Your task to perform on an android device: set the timer Image 0: 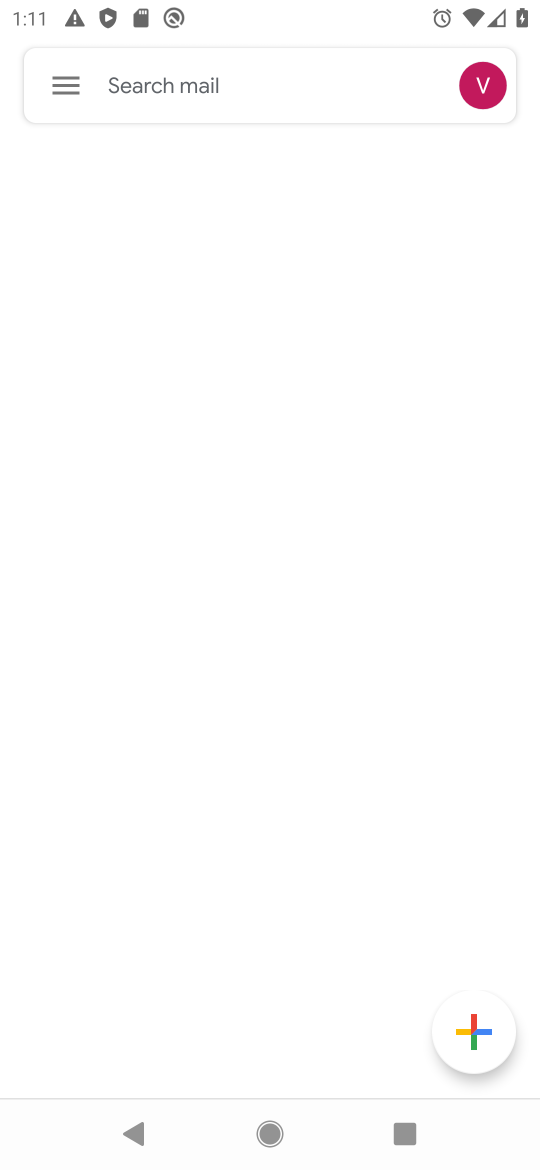
Step 0: press home button
Your task to perform on an android device: set the timer Image 1: 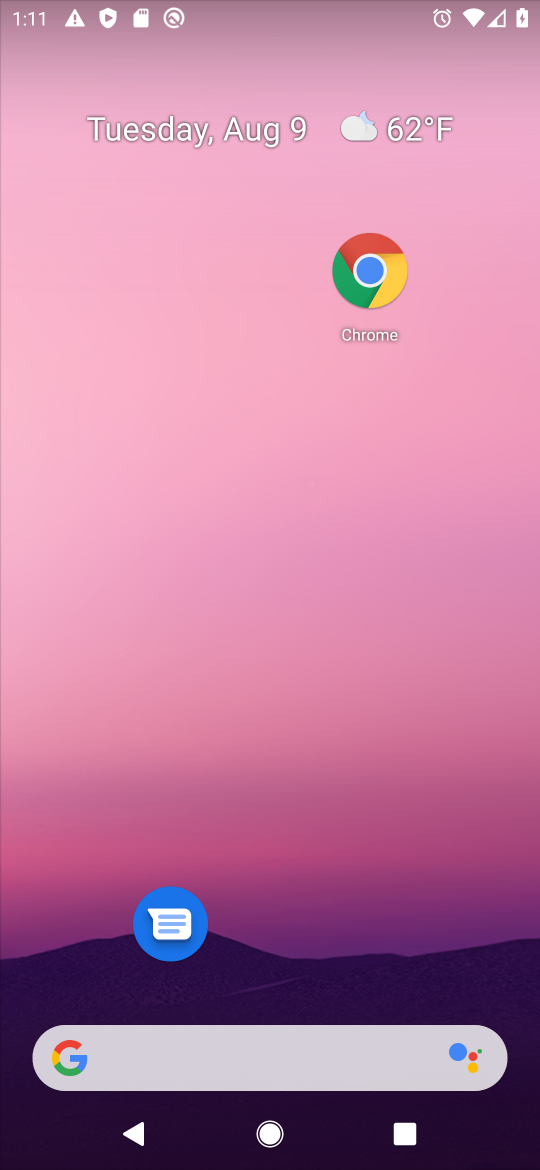
Step 1: drag from (354, 995) to (302, 62)
Your task to perform on an android device: set the timer Image 2: 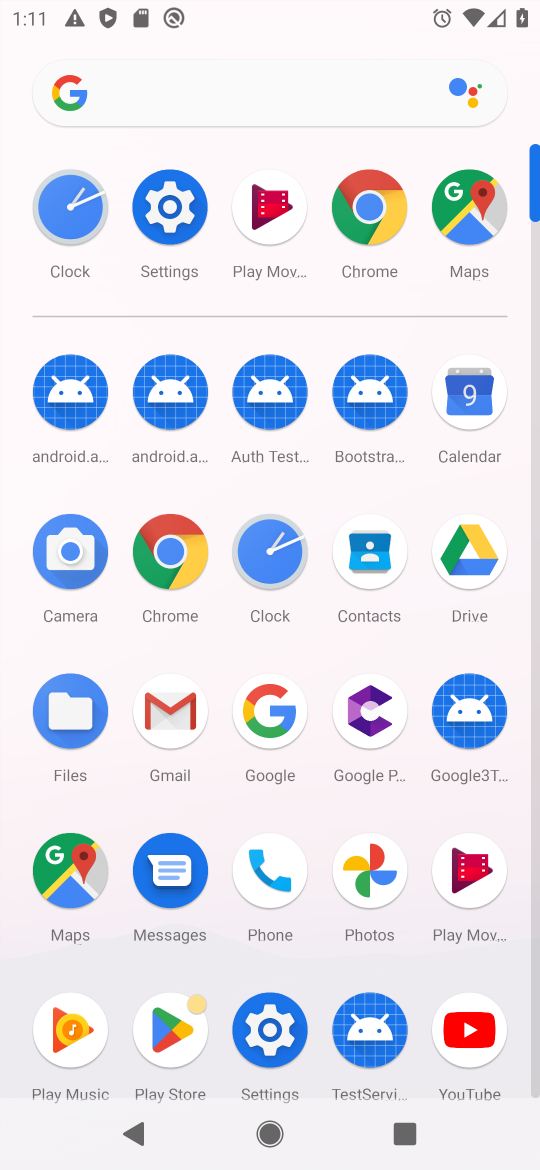
Step 2: click (179, 212)
Your task to perform on an android device: set the timer Image 3: 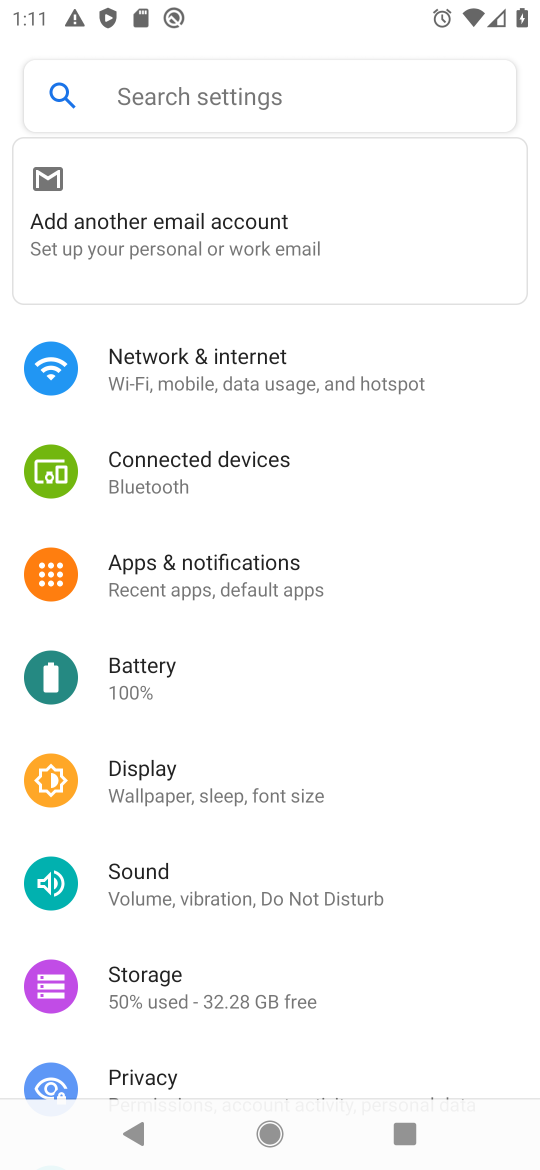
Step 3: task complete